Your task to perform on an android device: change your default location settings in chrome Image 0: 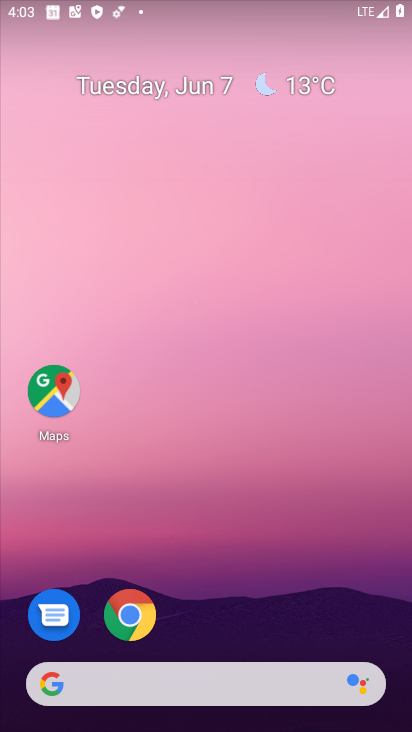
Step 0: click (130, 620)
Your task to perform on an android device: change your default location settings in chrome Image 1: 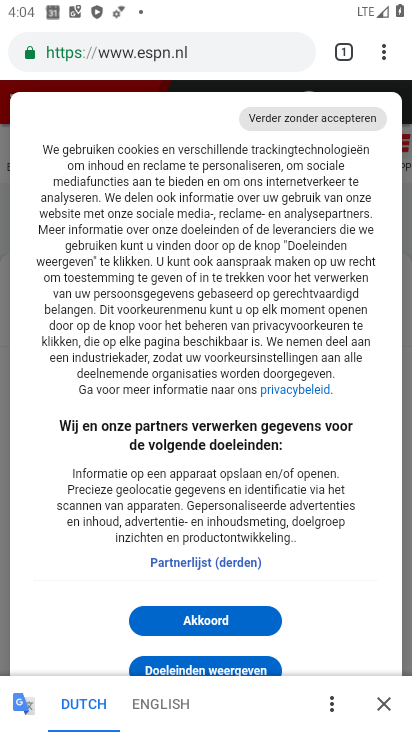
Step 1: click (384, 55)
Your task to perform on an android device: change your default location settings in chrome Image 2: 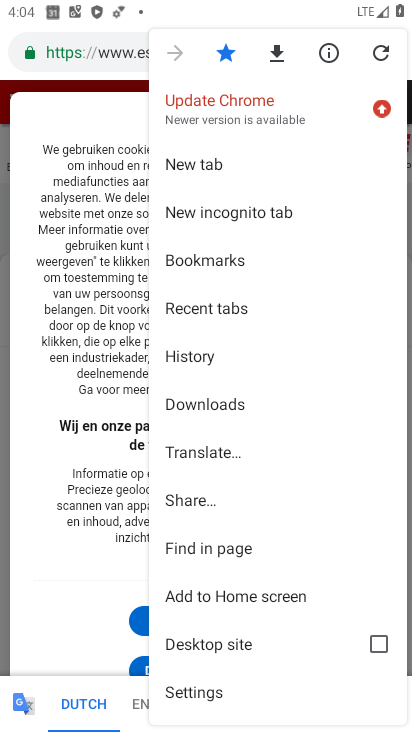
Step 2: click (182, 688)
Your task to perform on an android device: change your default location settings in chrome Image 3: 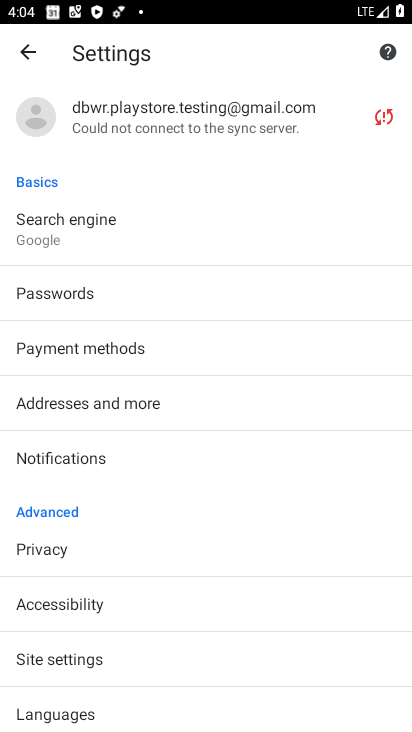
Step 3: click (62, 659)
Your task to perform on an android device: change your default location settings in chrome Image 4: 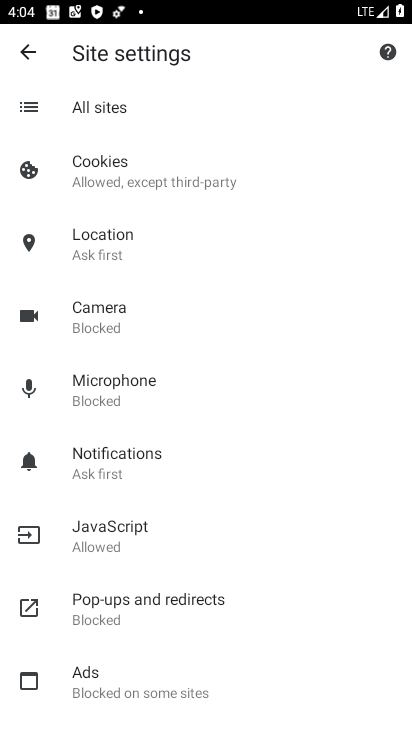
Step 4: click (97, 244)
Your task to perform on an android device: change your default location settings in chrome Image 5: 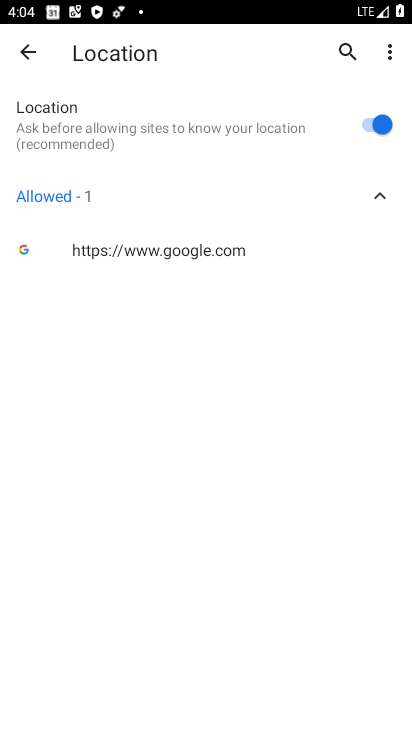
Step 5: click (368, 116)
Your task to perform on an android device: change your default location settings in chrome Image 6: 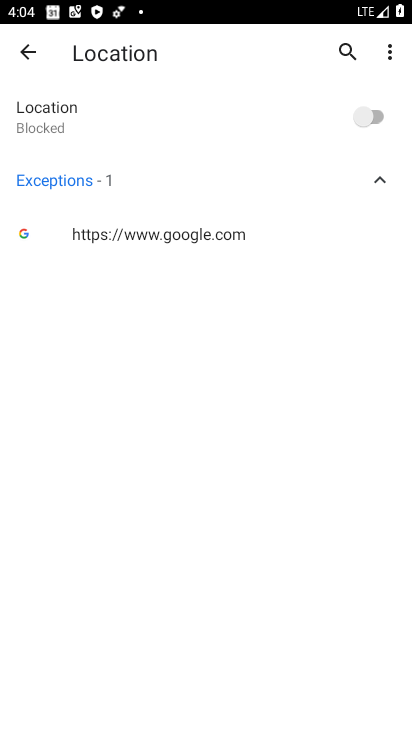
Step 6: task complete